Your task to perform on an android device: change alarm snooze length Image 0: 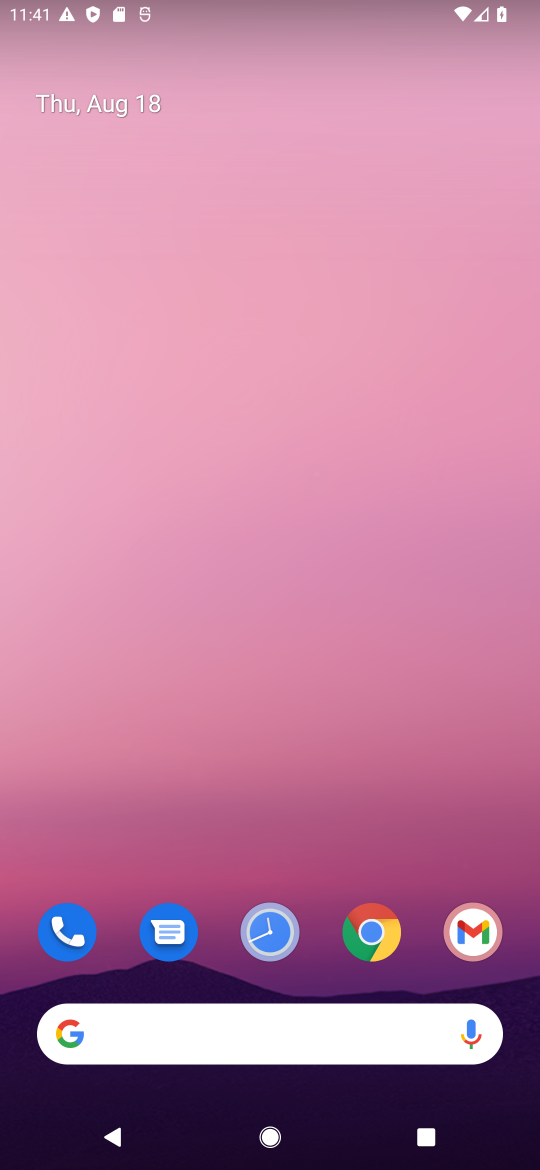
Step 0: click (268, 947)
Your task to perform on an android device: change alarm snooze length Image 1: 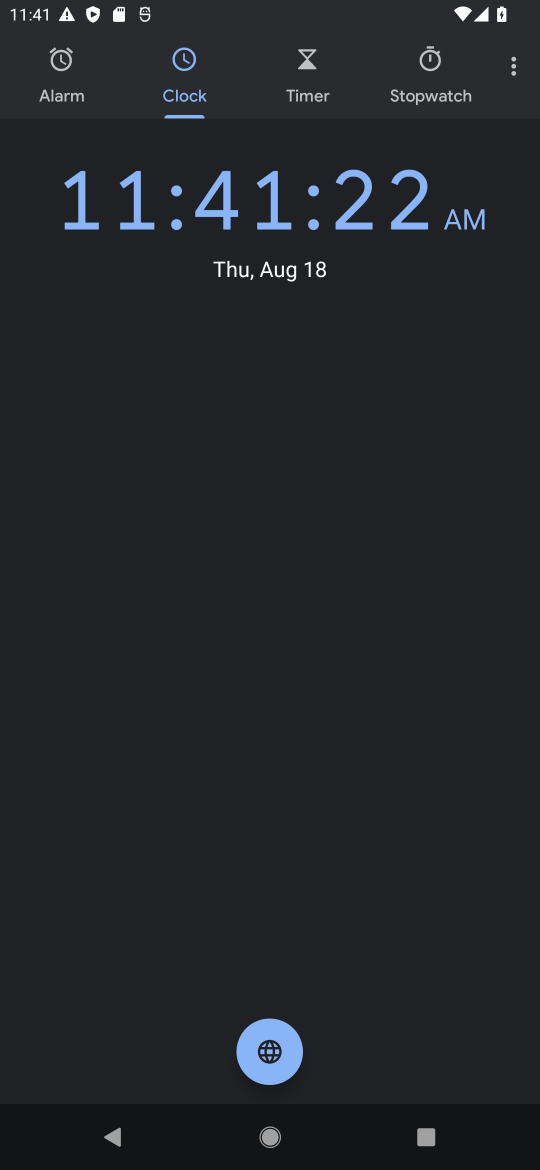
Step 1: click (509, 68)
Your task to perform on an android device: change alarm snooze length Image 2: 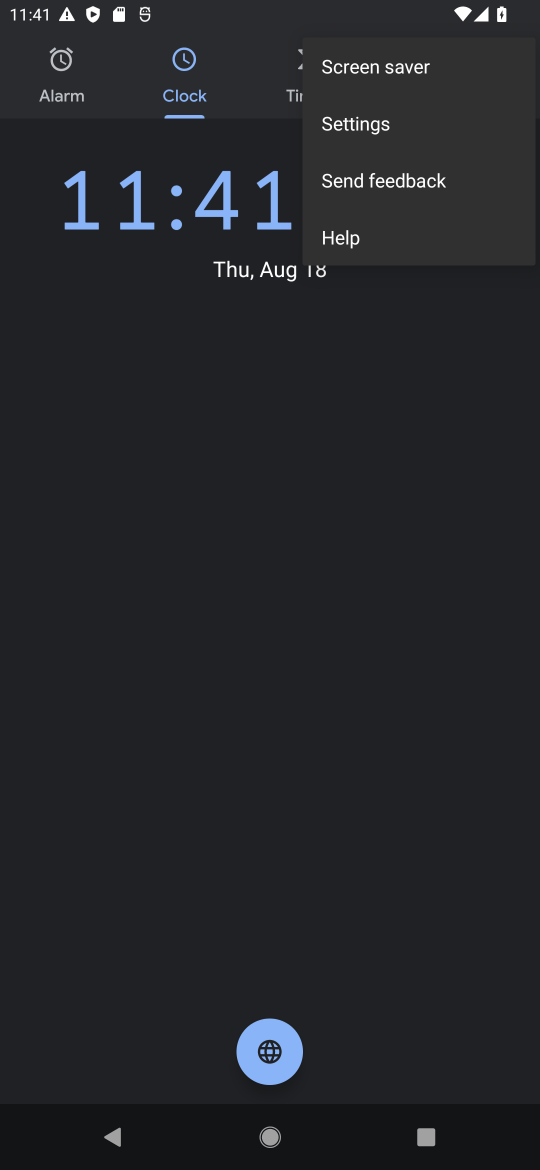
Step 2: click (347, 126)
Your task to perform on an android device: change alarm snooze length Image 3: 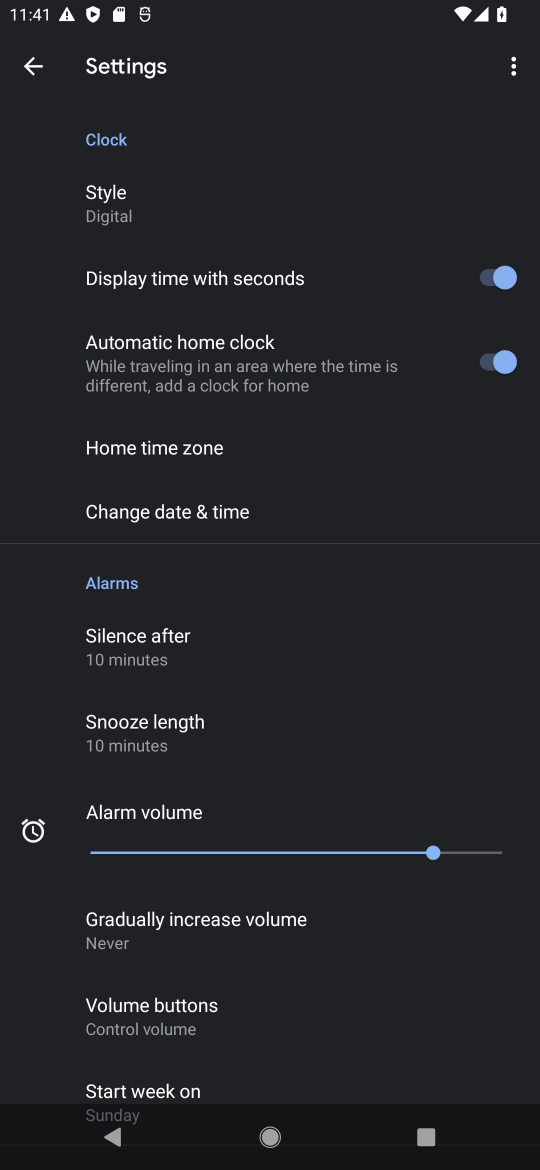
Step 3: click (199, 727)
Your task to perform on an android device: change alarm snooze length Image 4: 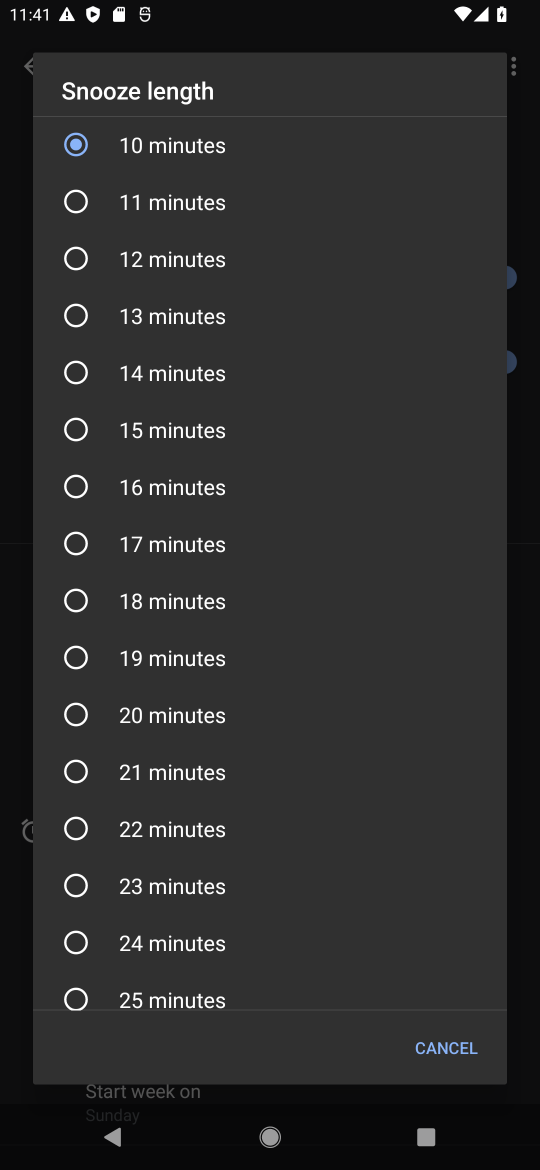
Step 4: click (76, 430)
Your task to perform on an android device: change alarm snooze length Image 5: 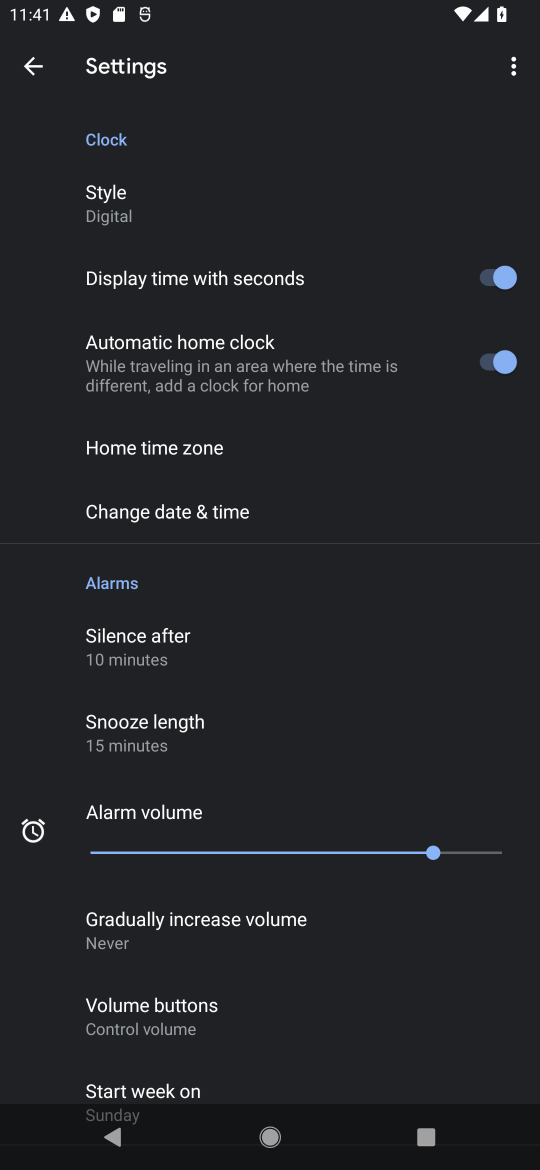
Step 5: task complete